Your task to perform on an android device: check android version Image 0: 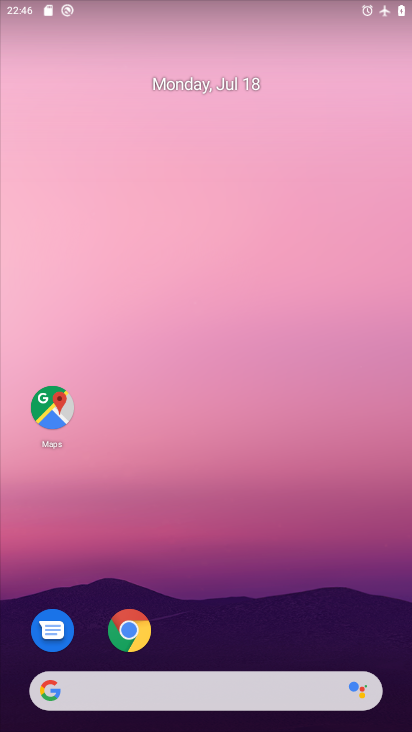
Step 0: drag from (211, 645) to (212, 228)
Your task to perform on an android device: check android version Image 1: 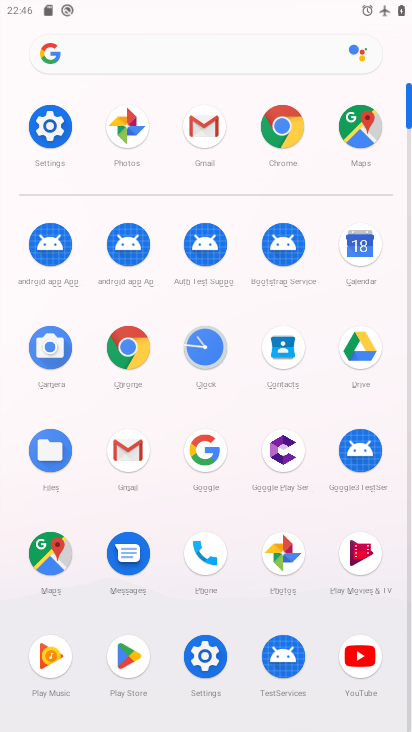
Step 1: click (26, 110)
Your task to perform on an android device: check android version Image 2: 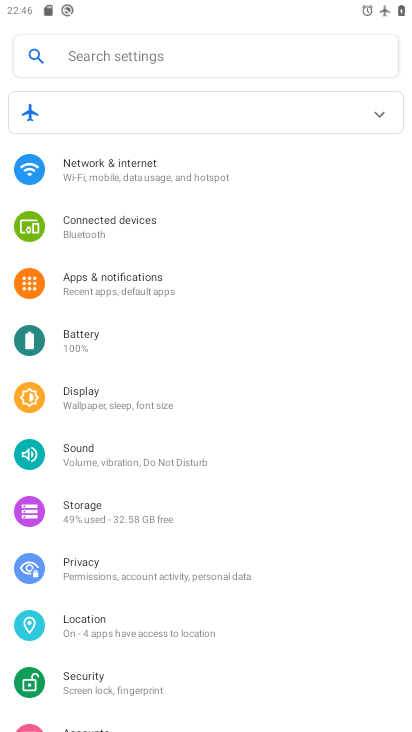
Step 2: drag from (146, 650) to (208, 235)
Your task to perform on an android device: check android version Image 3: 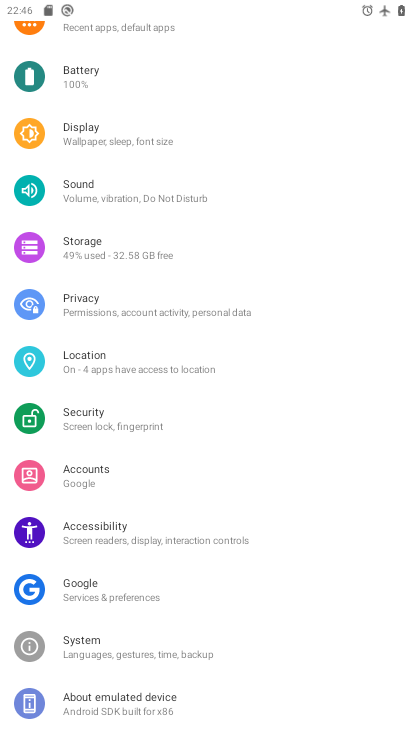
Step 3: click (108, 704)
Your task to perform on an android device: check android version Image 4: 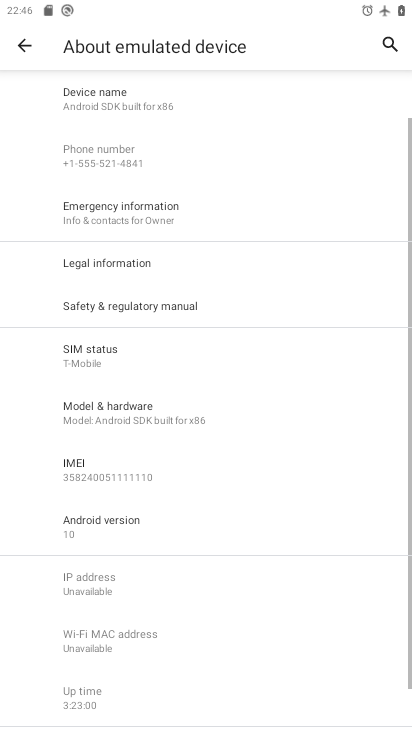
Step 4: click (126, 543)
Your task to perform on an android device: check android version Image 5: 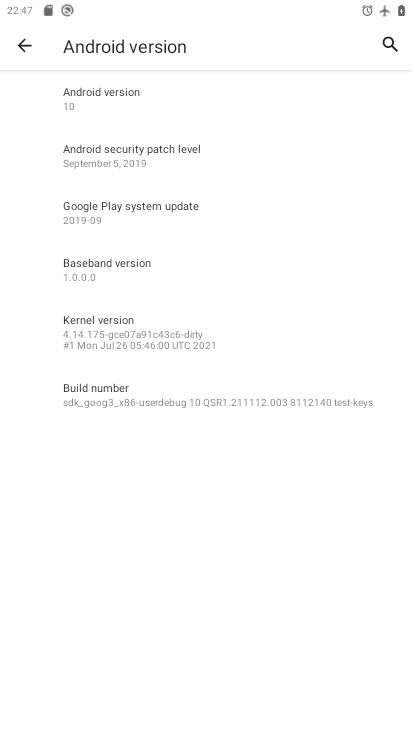
Step 5: task complete